Your task to perform on an android device: Search for Mexican restaurants on Maps Image 0: 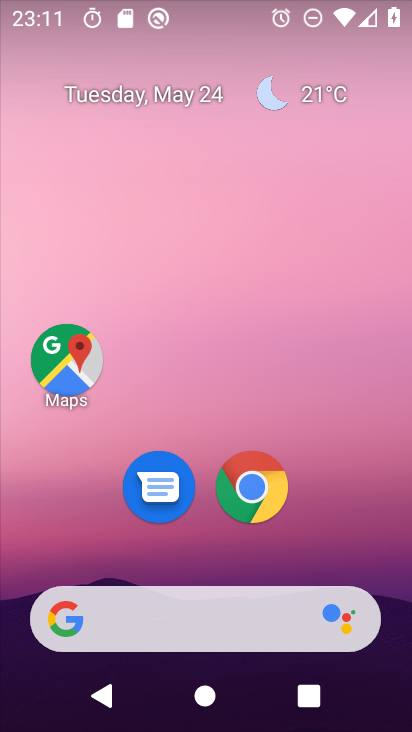
Step 0: click (73, 371)
Your task to perform on an android device: Search for Mexican restaurants on Maps Image 1: 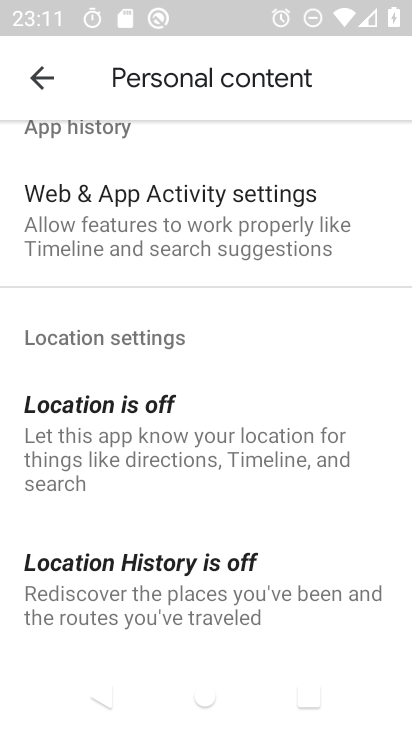
Step 1: click (45, 83)
Your task to perform on an android device: Search for Mexican restaurants on Maps Image 2: 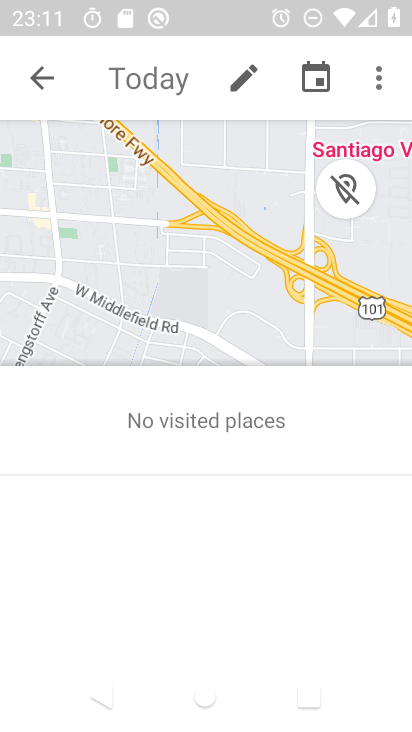
Step 2: click (50, 80)
Your task to perform on an android device: Search for Mexican restaurants on Maps Image 3: 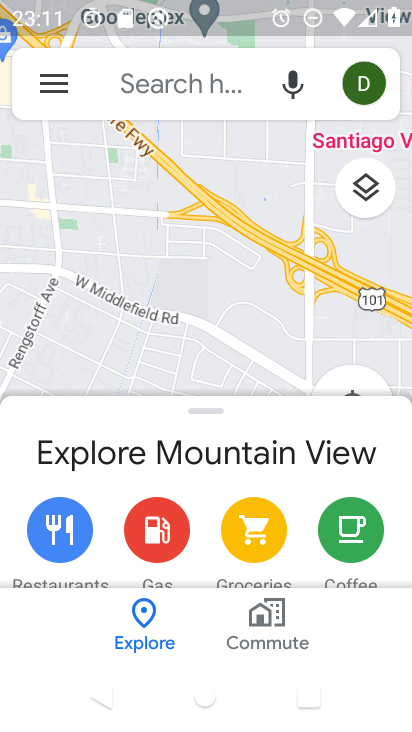
Step 3: click (136, 82)
Your task to perform on an android device: Search for Mexican restaurants on Maps Image 4: 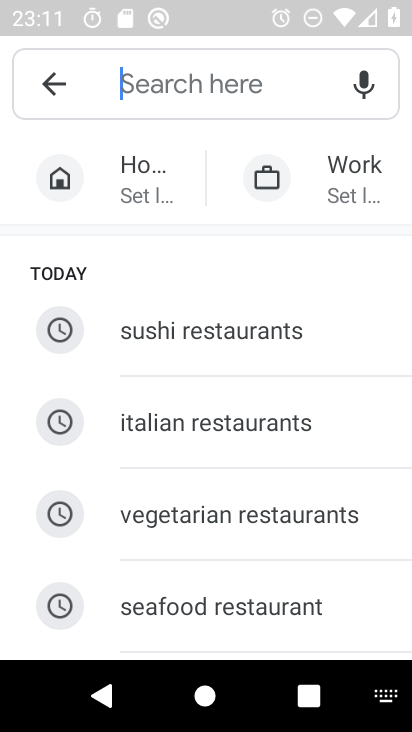
Step 4: type "mexican restaurants "
Your task to perform on an android device: Search for Mexican restaurants on Maps Image 5: 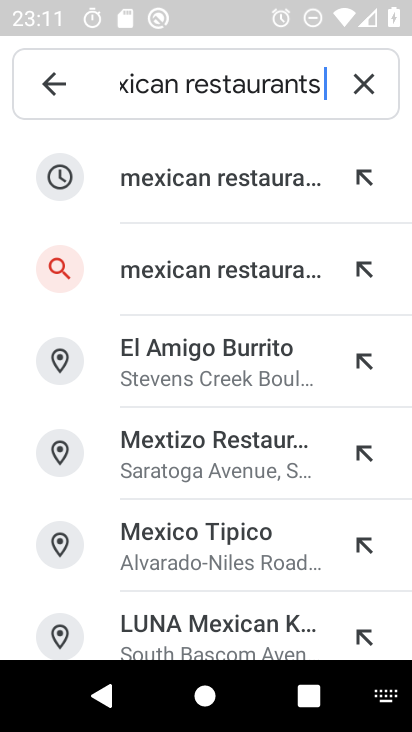
Step 5: click (184, 185)
Your task to perform on an android device: Search for Mexican restaurants on Maps Image 6: 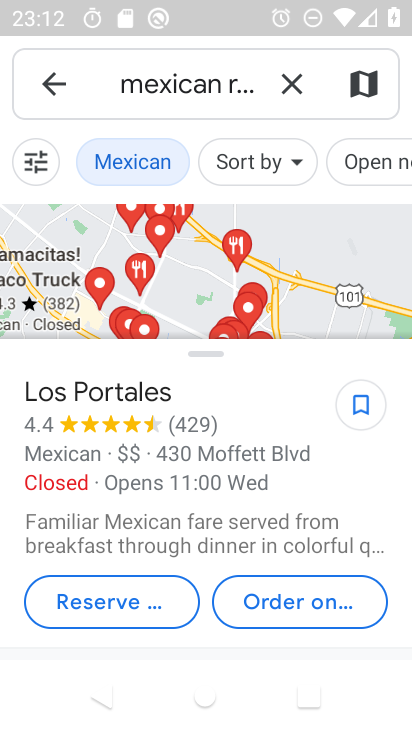
Step 6: task complete